Your task to perform on an android device: change timer sound Image 0: 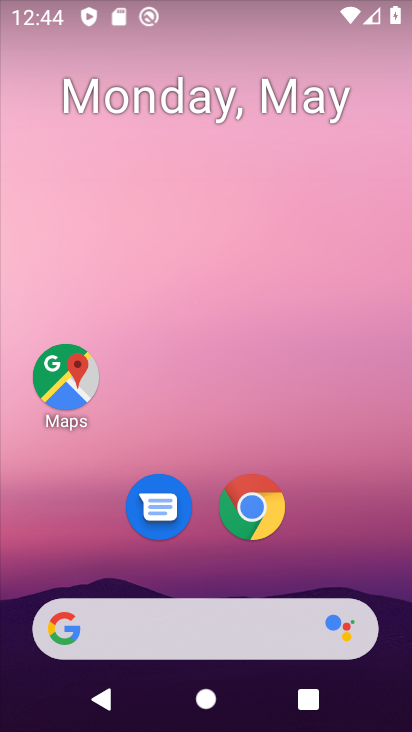
Step 0: drag from (226, 726) to (183, 37)
Your task to perform on an android device: change timer sound Image 1: 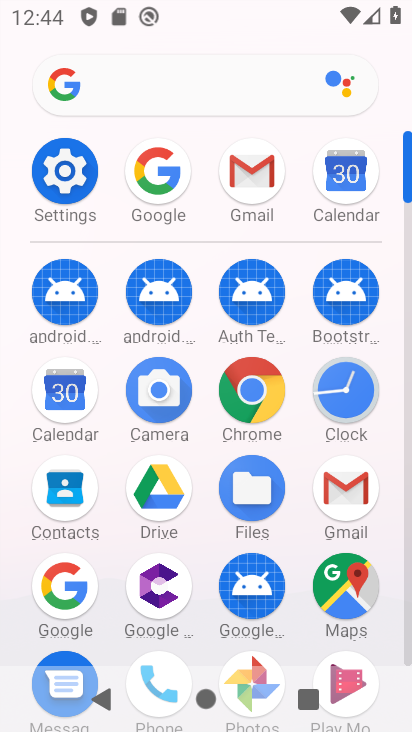
Step 1: click (342, 384)
Your task to perform on an android device: change timer sound Image 2: 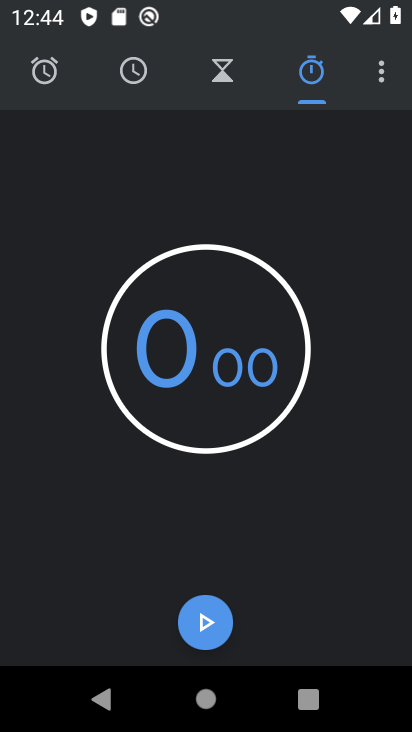
Step 2: click (382, 79)
Your task to perform on an android device: change timer sound Image 3: 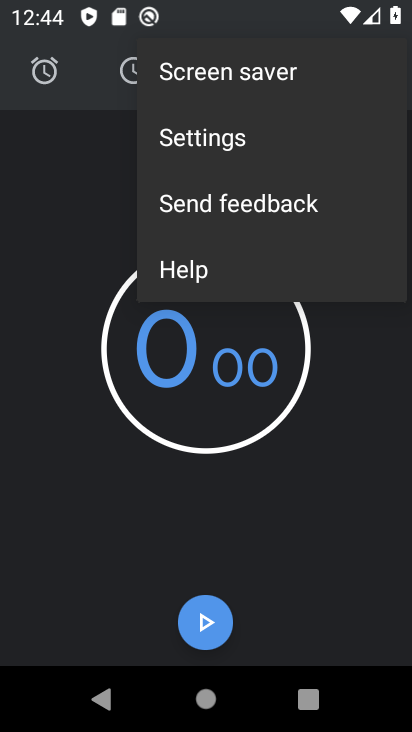
Step 3: click (202, 136)
Your task to perform on an android device: change timer sound Image 4: 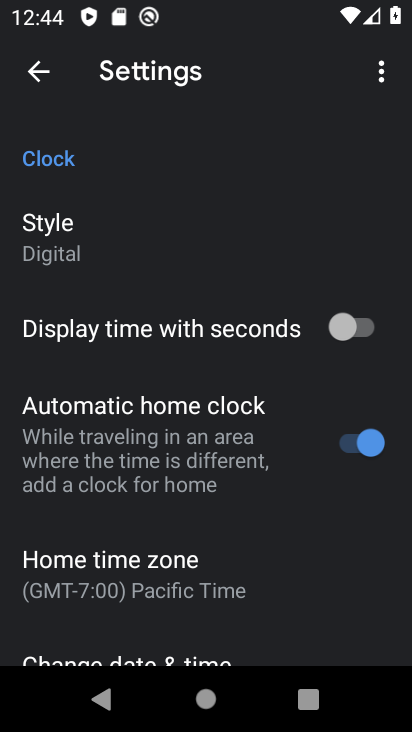
Step 4: drag from (122, 611) to (109, 196)
Your task to perform on an android device: change timer sound Image 5: 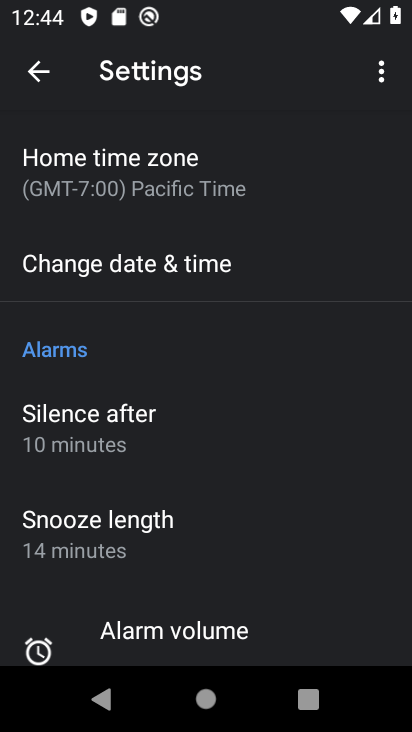
Step 5: drag from (151, 588) to (147, 450)
Your task to perform on an android device: change timer sound Image 6: 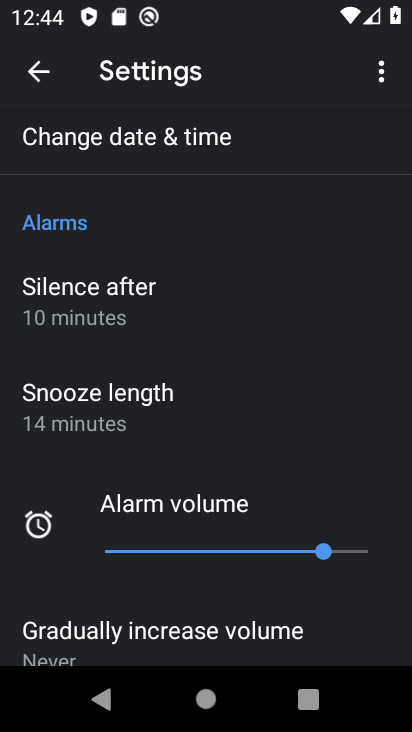
Step 6: drag from (102, 628) to (91, 160)
Your task to perform on an android device: change timer sound Image 7: 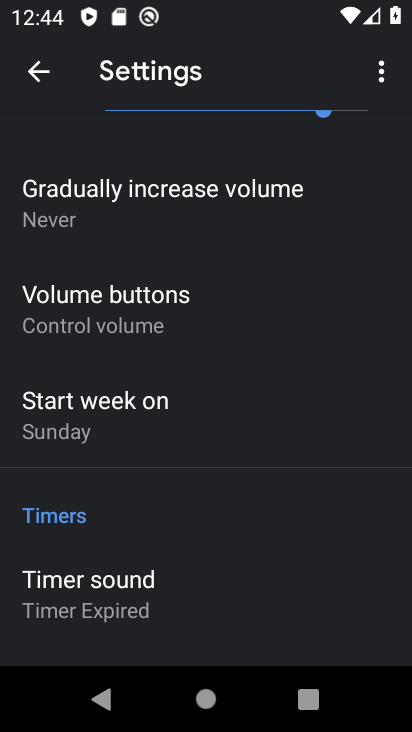
Step 7: drag from (120, 595) to (116, 429)
Your task to perform on an android device: change timer sound Image 8: 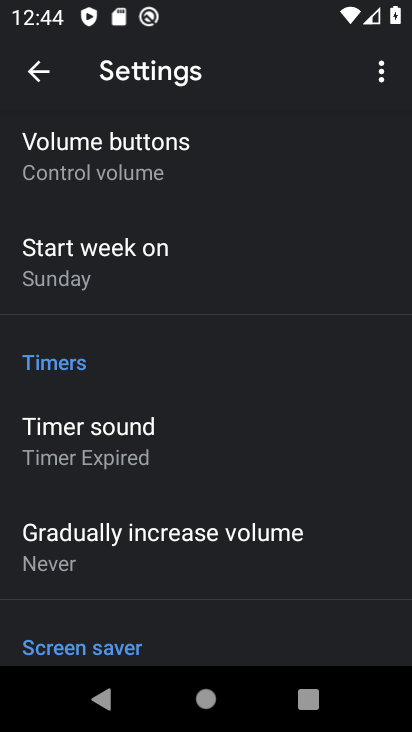
Step 8: click (105, 440)
Your task to perform on an android device: change timer sound Image 9: 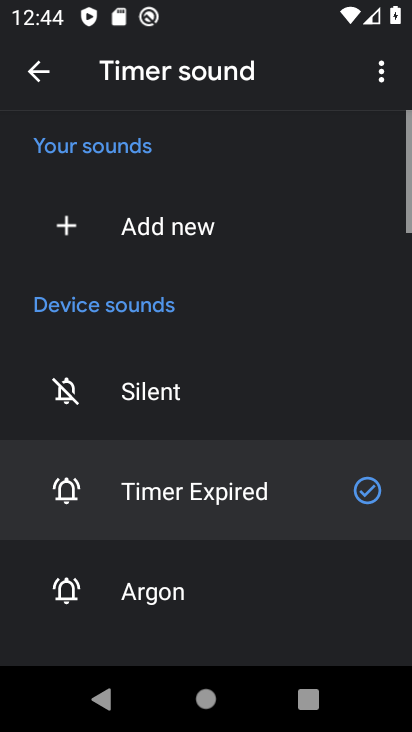
Step 9: drag from (159, 610) to (155, 303)
Your task to perform on an android device: change timer sound Image 10: 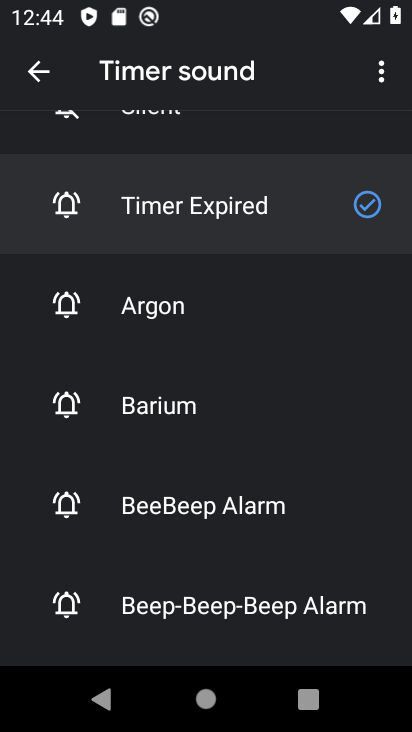
Step 10: click (76, 511)
Your task to perform on an android device: change timer sound Image 11: 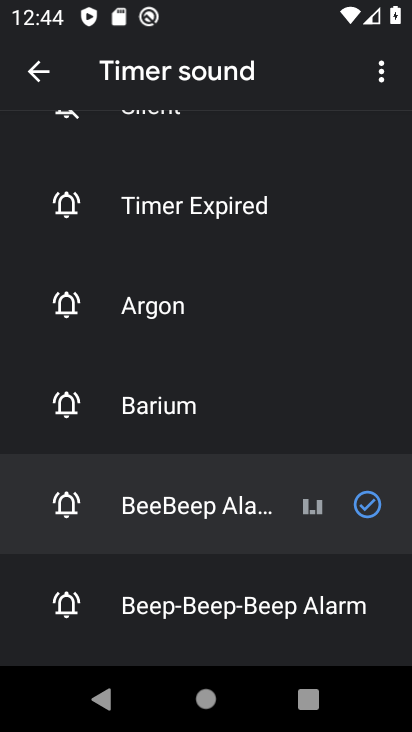
Step 11: task complete